Your task to perform on an android device: Go to calendar. Show me events next week Image 0: 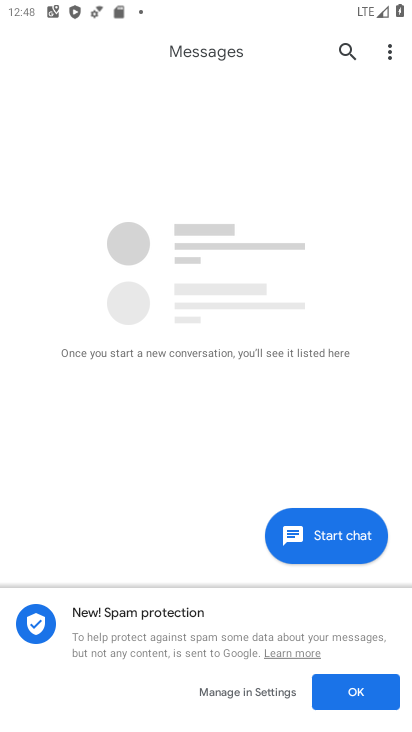
Step 0: press home button
Your task to perform on an android device: Go to calendar. Show me events next week Image 1: 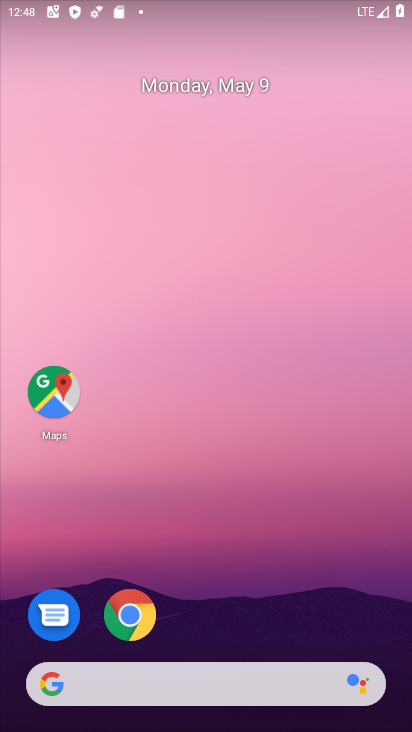
Step 1: drag from (373, 631) to (258, 106)
Your task to perform on an android device: Go to calendar. Show me events next week Image 2: 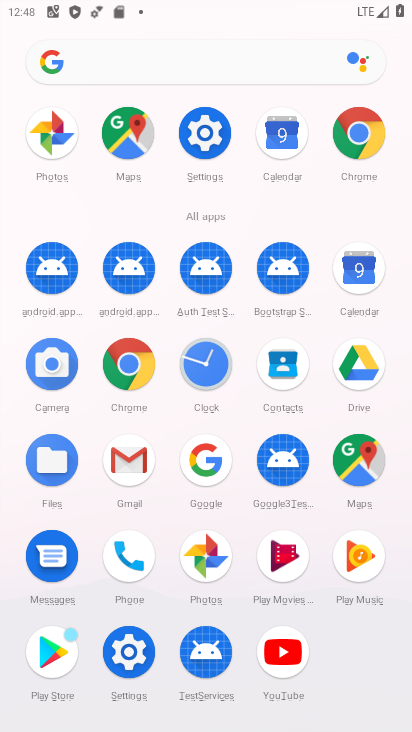
Step 2: click (358, 268)
Your task to perform on an android device: Go to calendar. Show me events next week Image 3: 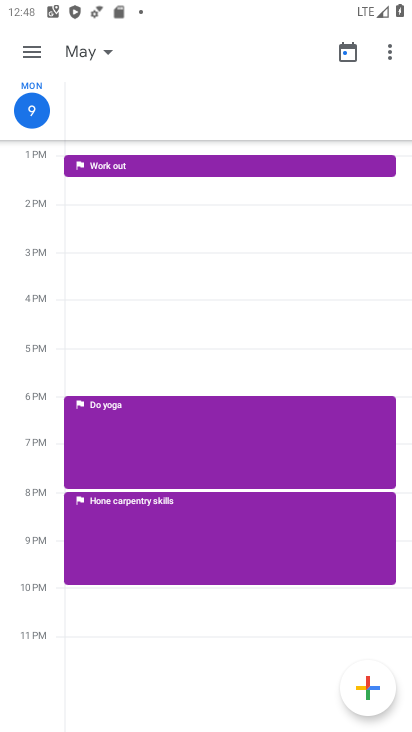
Step 3: click (35, 47)
Your task to perform on an android device: Go to calendar. Show me events next week Image 4: 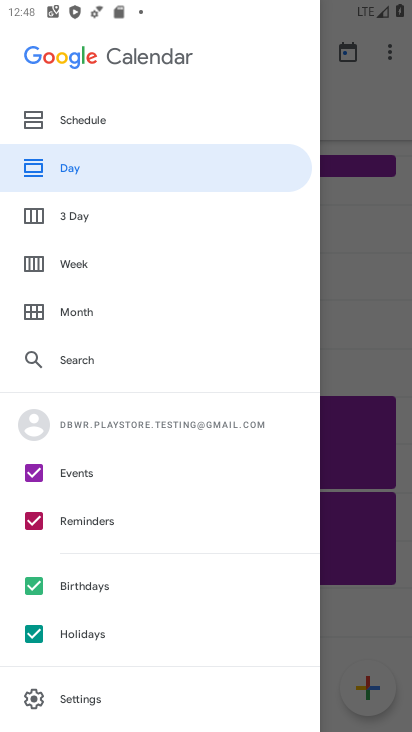
Step 4: click (73, 265)
Your task to perform on an android device: Go to calendar. Show me events next week Image 5: 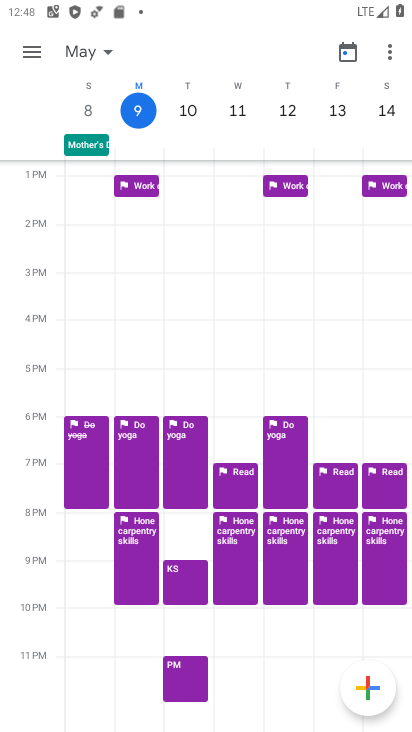
Step 5: click (106, 56)
Your task to perform on an android device: Go to calendar. Show me events next week Image 6: 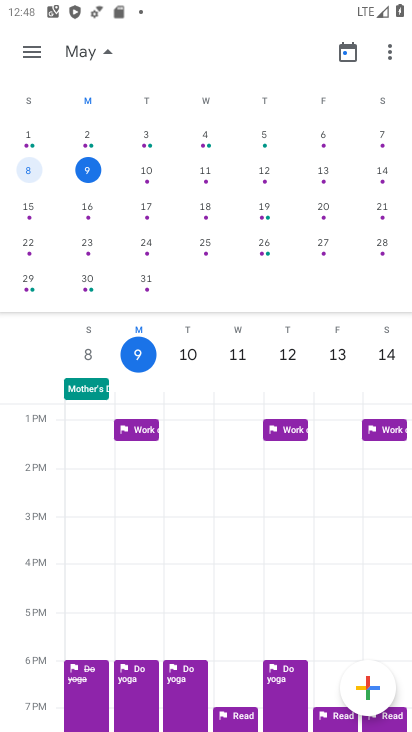
Step 6: click (27, 205)
Your task to perform on an android device: Go to calendar. Show me events next week Image 7: 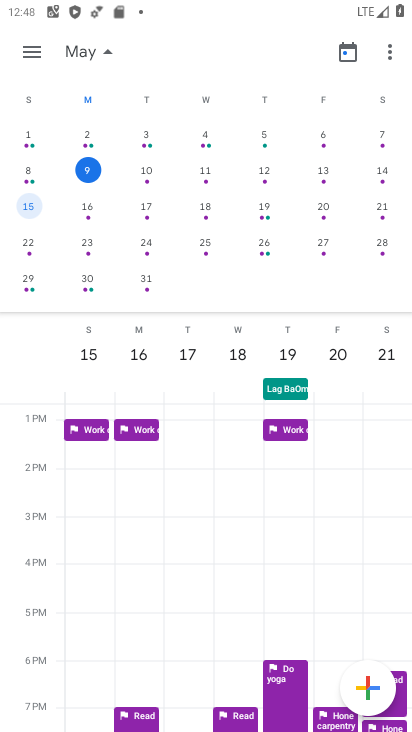
Step 7: task complete